Your task to perform on an android device: Open Google Maps Image 0: 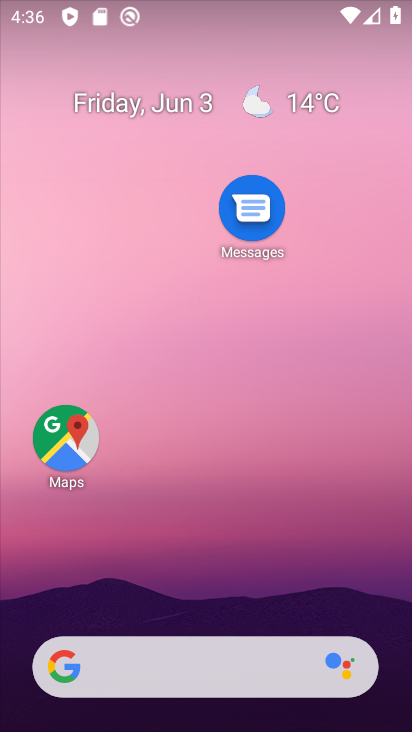
Step 0: click (60, 443)
Your task to perform on an android device: Open Google Maps Image 1: 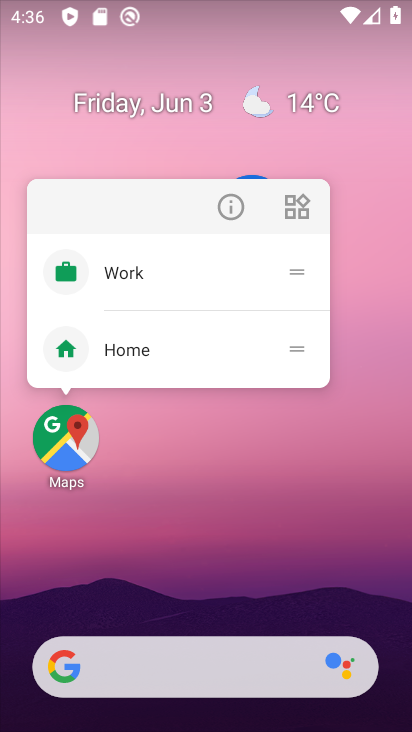
Step 1: click (54, 458)
Your task to perform on an android device: Open Google Maps Image 2: 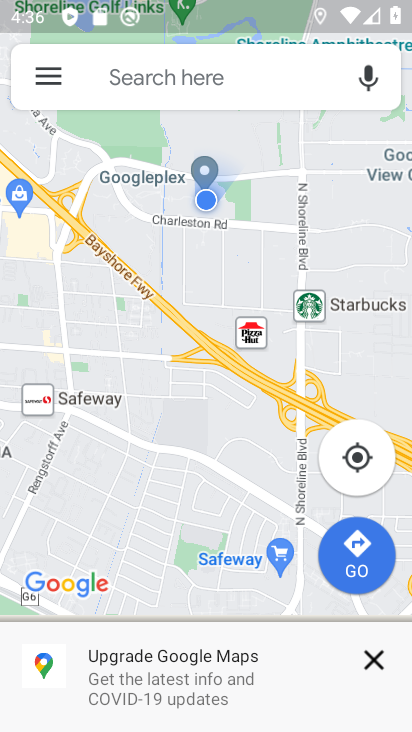
Step 2: task complete